Your task to perform on an android device: set default search engine in the chrome app Image 0: 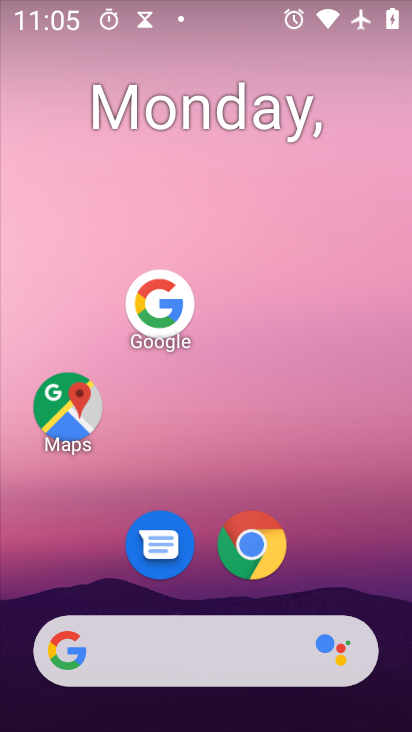
Step 0: click (240, 546)
Your task to perform on an android device: set default search engine in the chrome app Image 1: 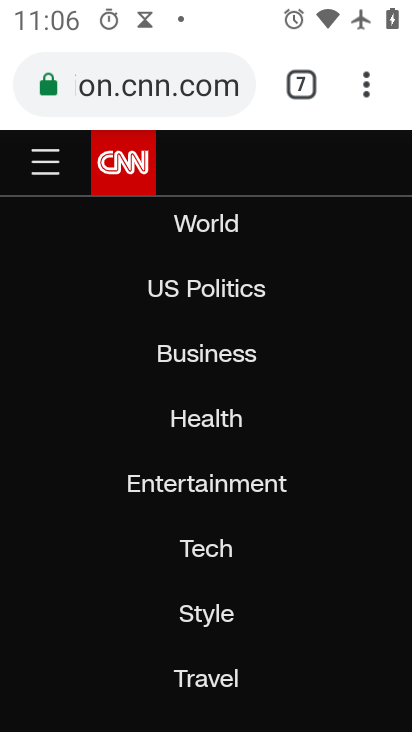
Step 1: drag from (364, 88) to (190, 602)
Your task to perform on an android device: set default search engine in the chrome app Image 2: 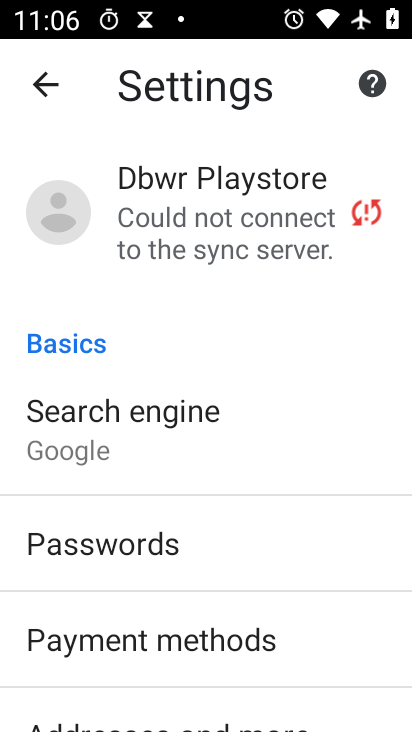
Step 2: click (199, 432)
Your task to perform on an android device: set default search engine in the chrome app Image 3: 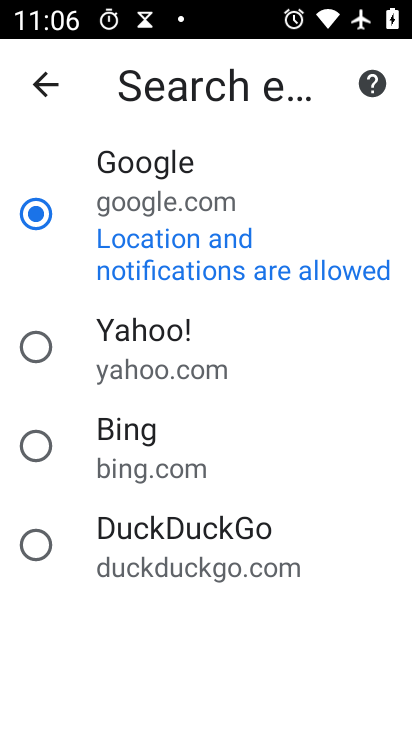
Step 3: click (49, 345)
Your task to perform on an android device: set default search engine in the chrome app Image 4: 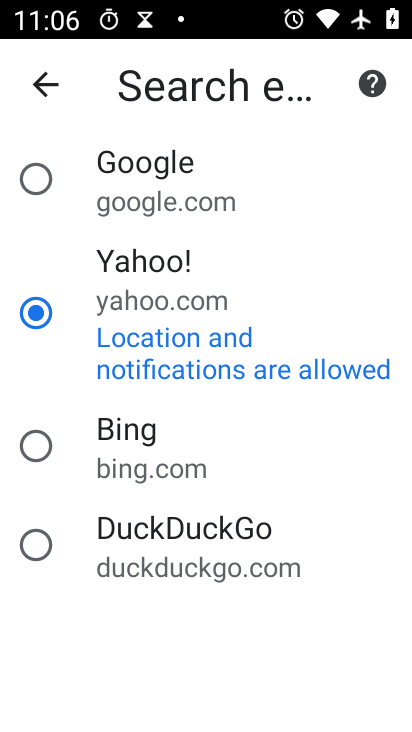
Step 4: task complete